Your task to perform on an android device: Show the shopping cart on costco. Image 0: 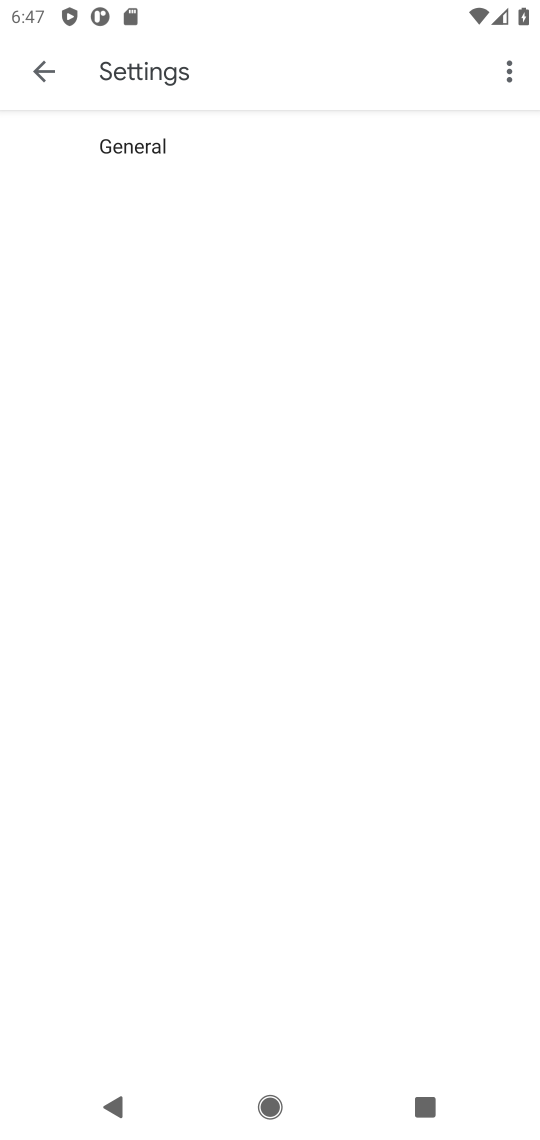
Step 0: press home button
Your task to perform on an android device: Show the shopping cart on costco. Image 1: 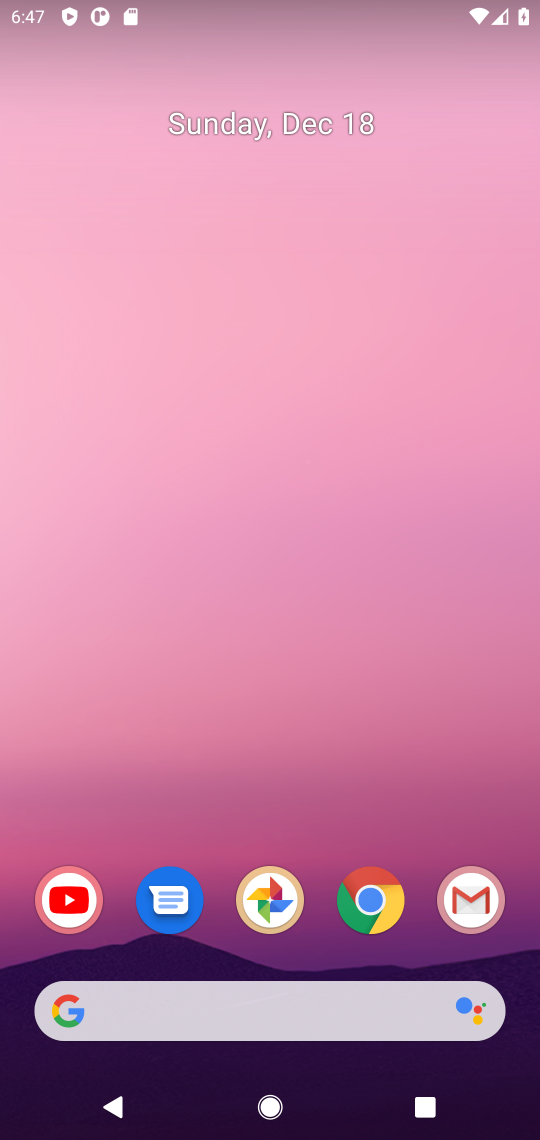
Step 1: click (373, 901)
Your task to perform on an android device: Show the shopping cart on costco. Image 2: 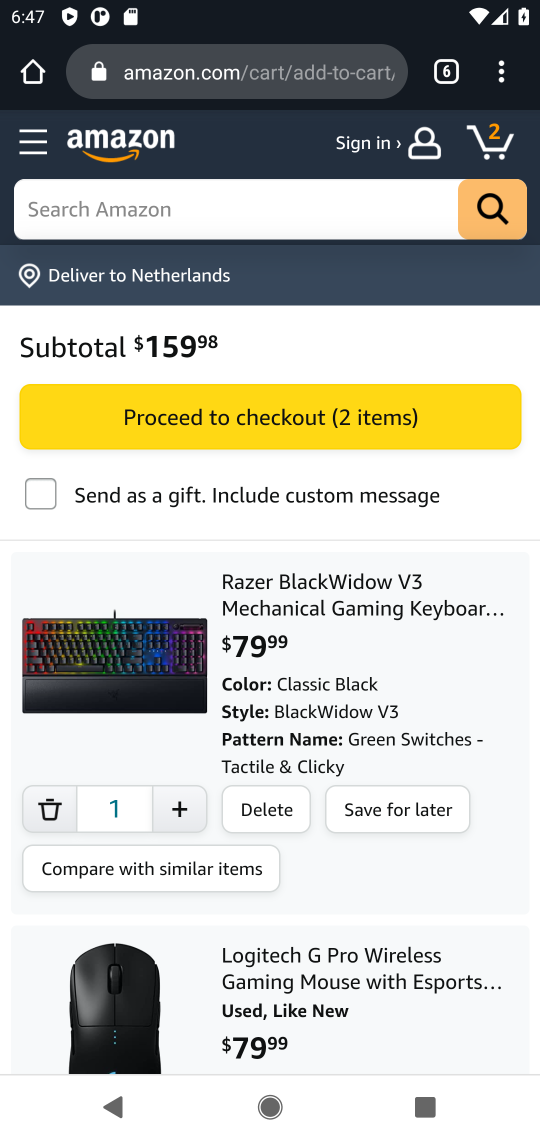
Step 2: click (445, 75)
Your task to perform on an android device: Show the shopping cart on costco. Image 3: 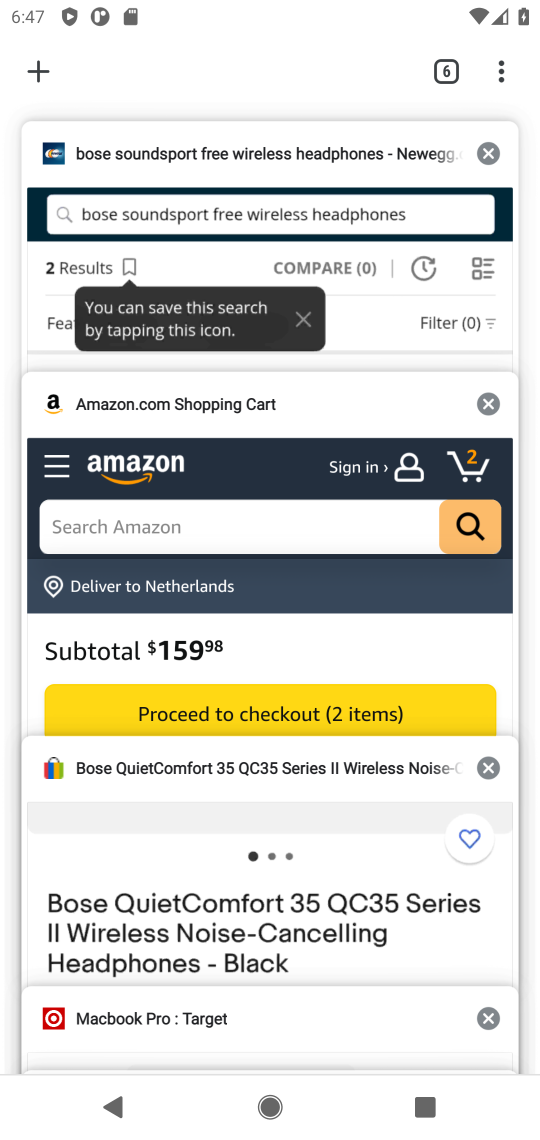
Step 3: drag from (143, 939) to (176, 556)
Your task to perform on an android device: Show the shopping cart on costco. Image 4: 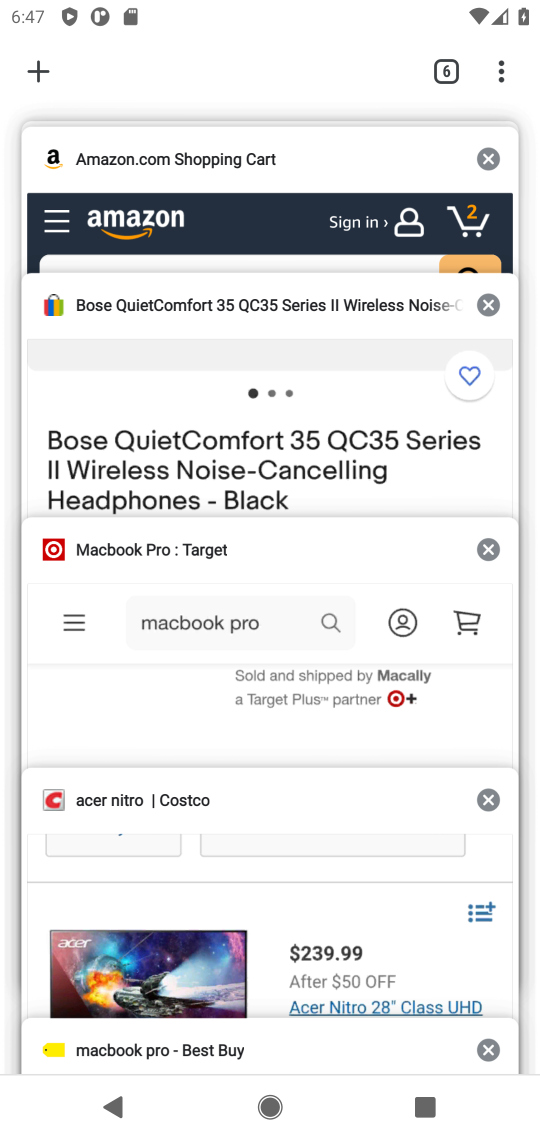
Step 4: click (191, 829)
Your task to perform on an android device: Show the shopping cart on costco. Image 5: 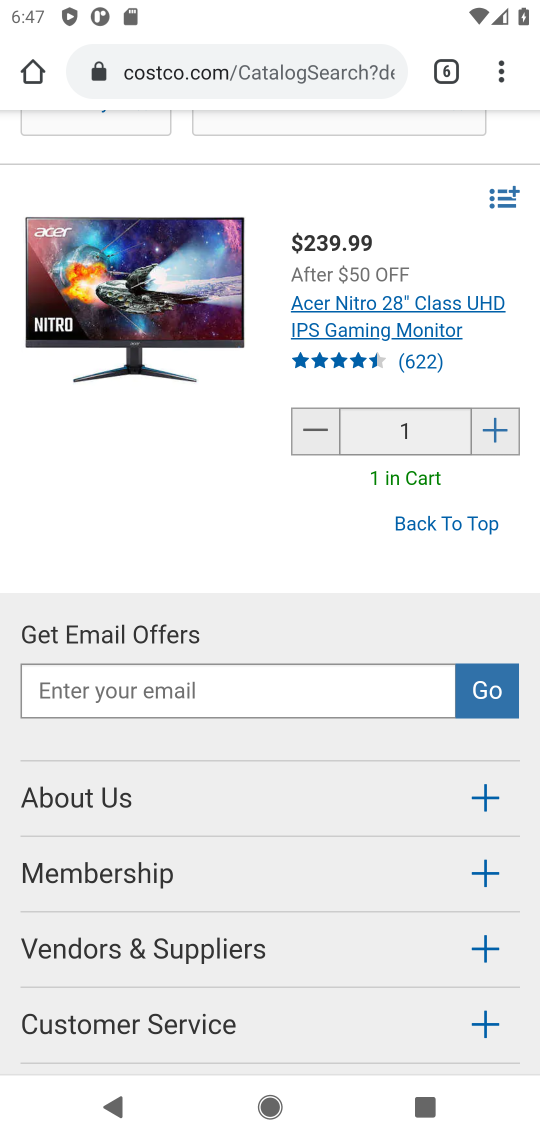
Step 5: drag from (440, 329) to (437, 920)
Your task to perform on an android device: Show the shopping cart on costco. Image 6: 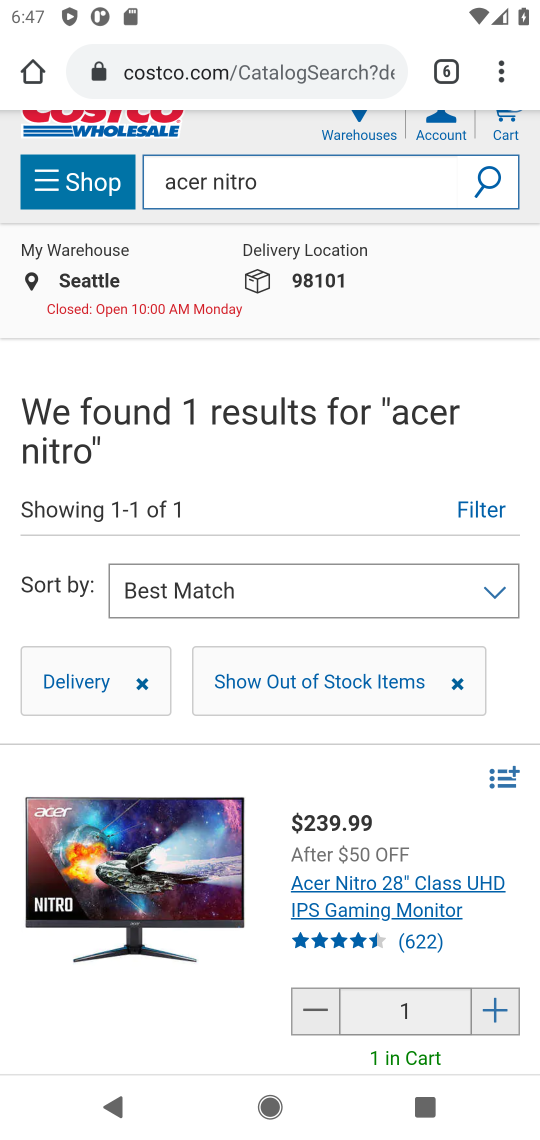
Step 6: click (503, 121)
Your task to perform on an android device: Show the shopping cart on costco. Image 7: 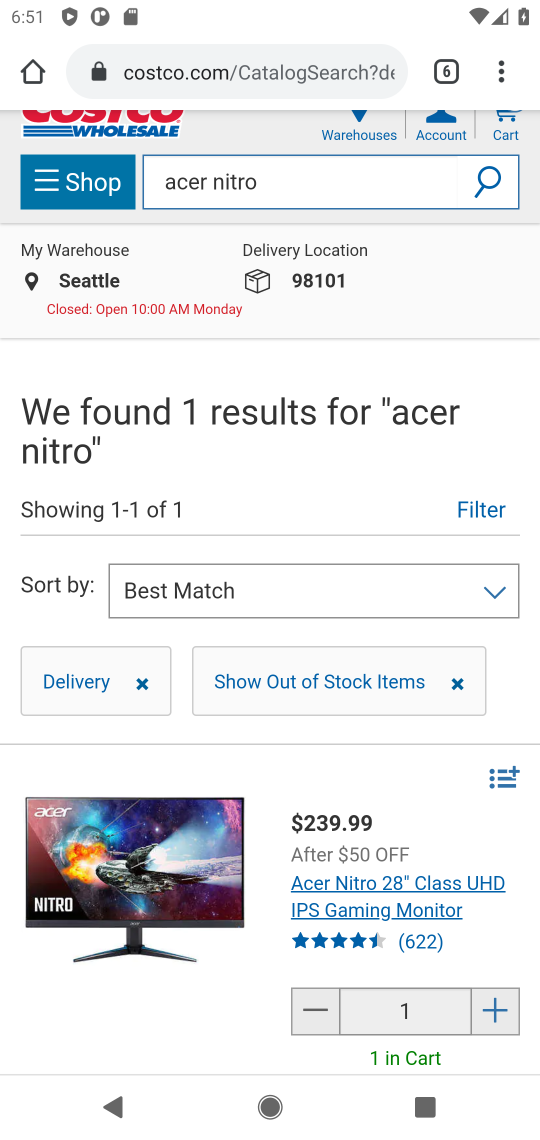
Step 7: task complete